Your task to perform on an android device: turn off improve location accuracy Image 0: 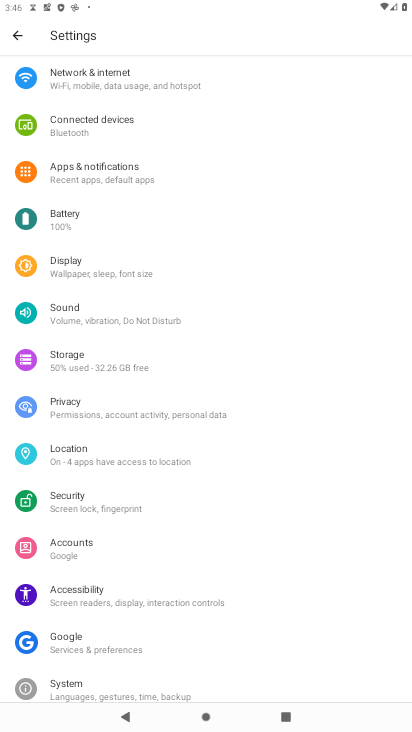
Step 0: press home button
Your task to perform on an android device: turn off improve location accuracy Image 1: 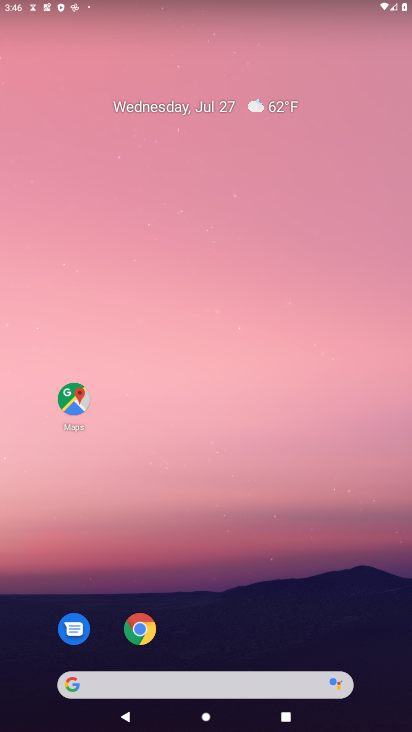
Step 1: drag from (201, 667) to (409, 106)
Your task to perform on an android device: turn off improve location accuracy Image 2: 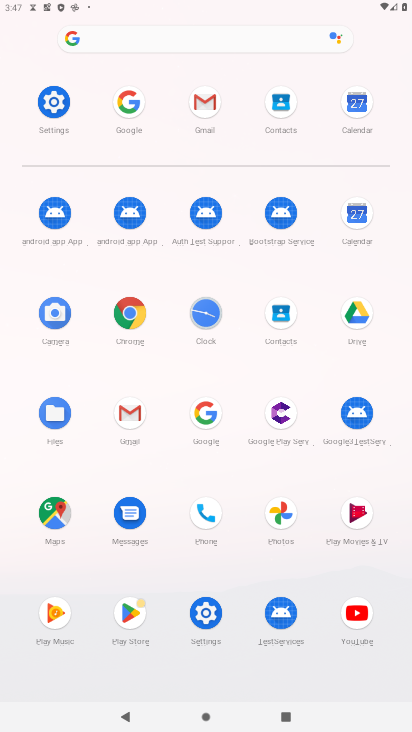
Step 2: click (53, 102)
Your task to perform on an android device: turn off improve location accuracy Image 3: 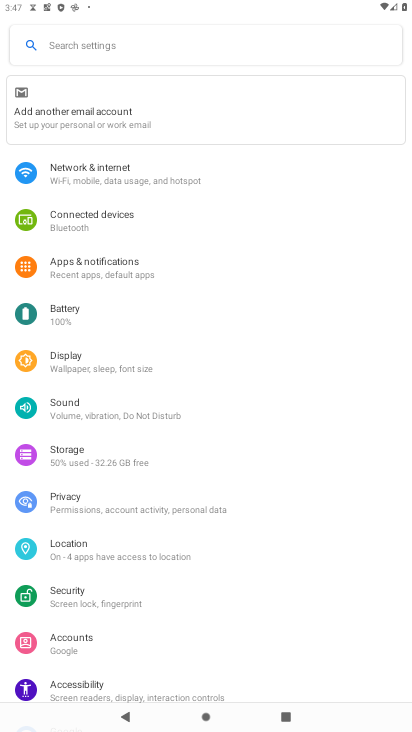
Step 3: click (71, 544)
Your task to perform on an android device: turn off improve location accuracy Image 4: 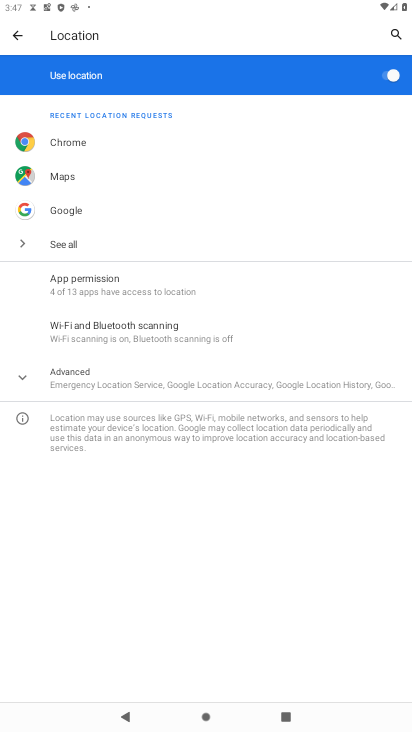
Step 4: click (99, 385)
Your task to perform on an android device: turn off improve location accuracy Image 5: 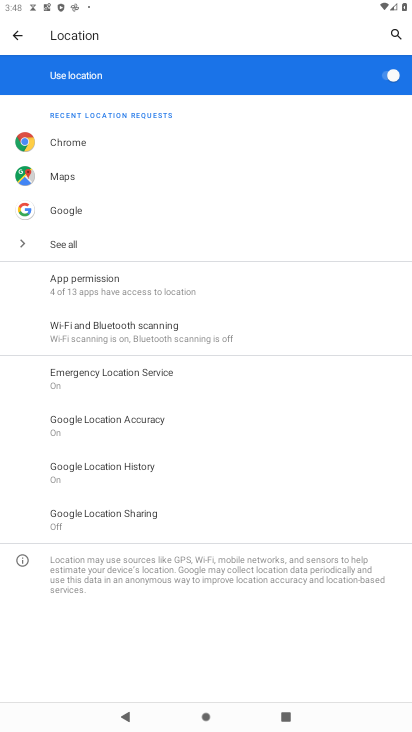
Step 5: click (140, 416)
Your task to perform on an android device: turn off improve location accuracy Image 6: 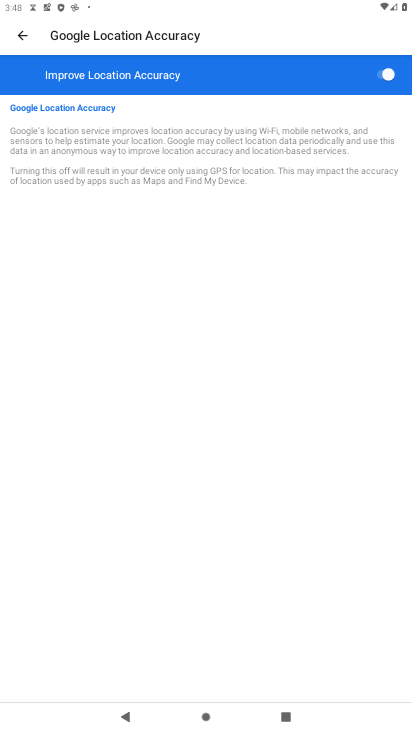
Step 6: click (380, 75)
Your task to perform on an android device: turn off improve location accuracy Image 7: 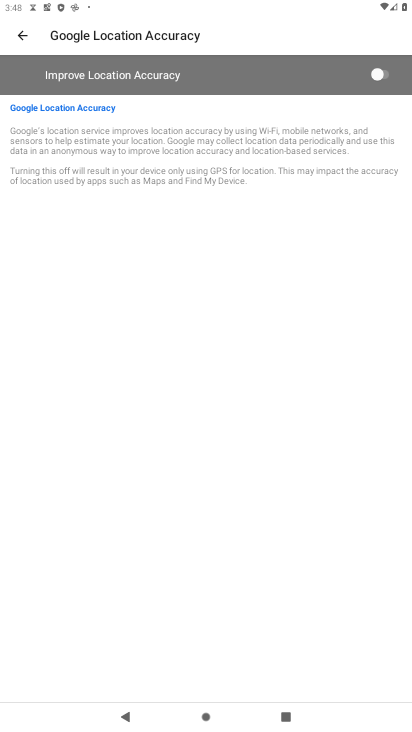
Step 7: task complete